Your task to perform on an android device: add a contact in the contacts app Image 0: 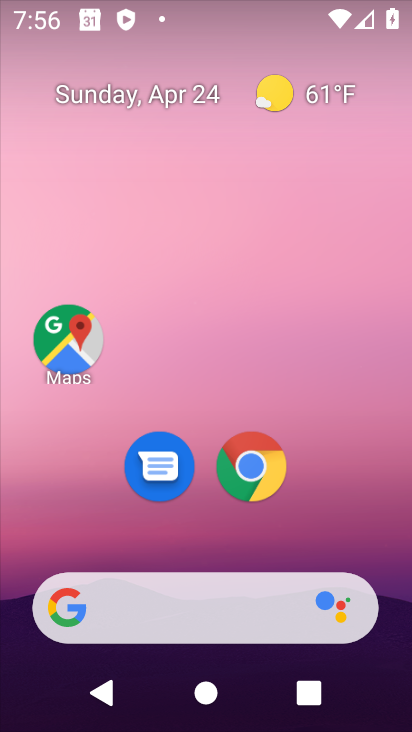
Step 0: drag from (217, 530) to (339, 0)
Your task to perform on an android device: add a contact in the contacts app Image 1: 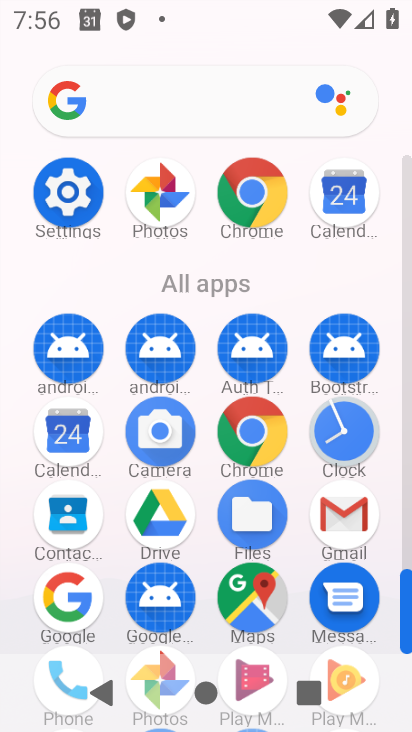
Step 1: click (53, 522)
Your task to perform on an android device: add a contact in the contacts app Image 2: 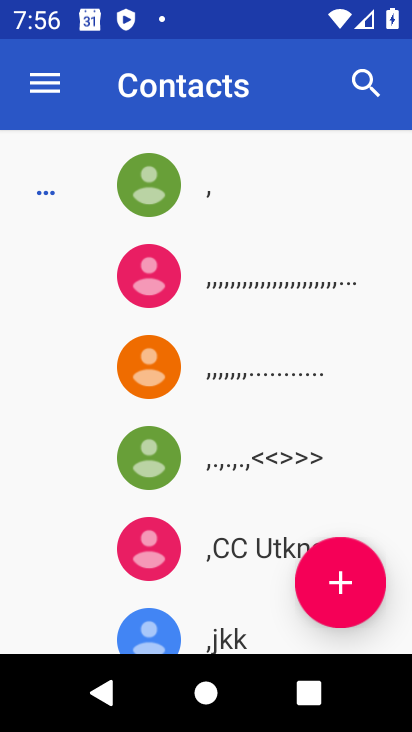
Step 2: click (344, 582)
Your task to perform on an android device: add a contact in the contacts app Image 3: 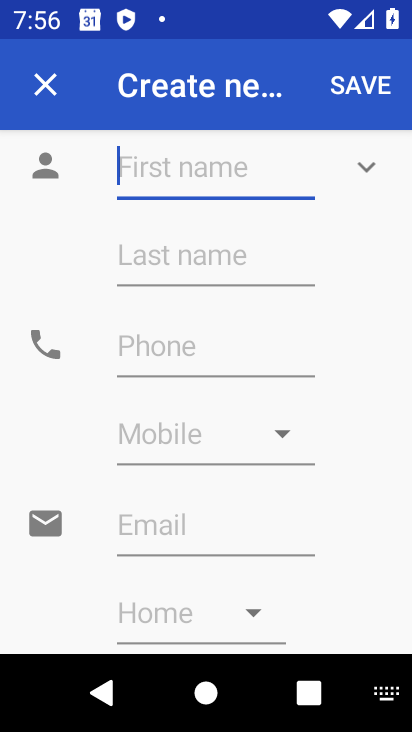
Step 3: type "tascle"
Your task to perform on an android device: add a contact in the contacts app Image 4: 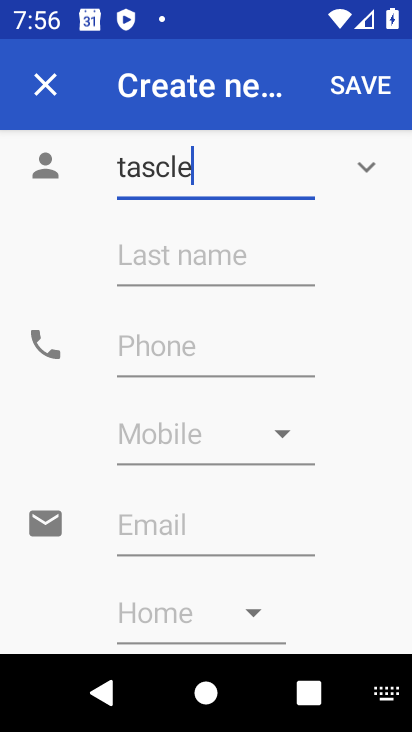
Step 4: click (371, 83)
Your task to perform on an android device: add a contact in the contacts app Image 5: 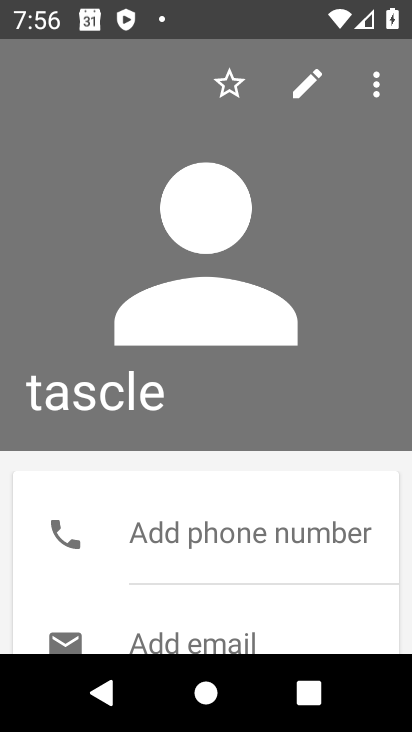
Step 5: task complete